Your task to perform on an android device: Open Yahoo.com Image 0: 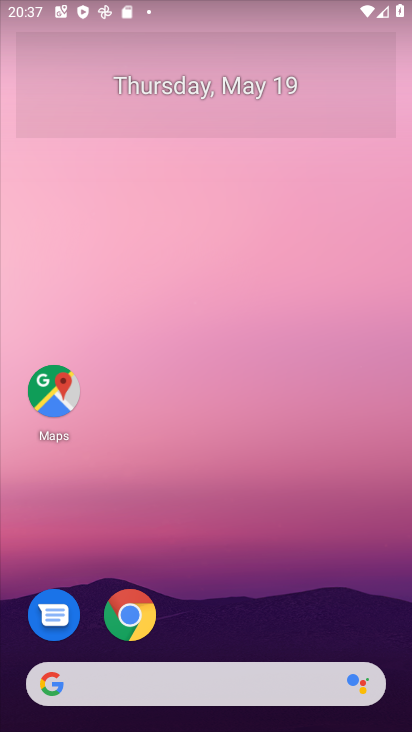
Step 0: click (127, 620)
Your task to perform on an android device: Open Yahoo.com Image 1: 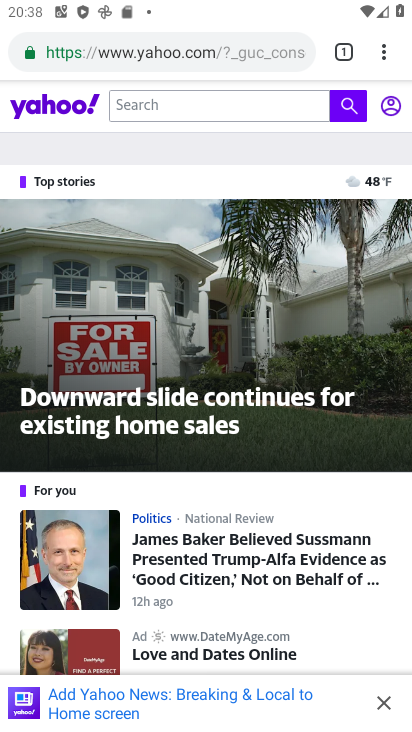
Step 1: task complete